Your task to perform on an android device: Open Chrome and go to the settings page Image 0: 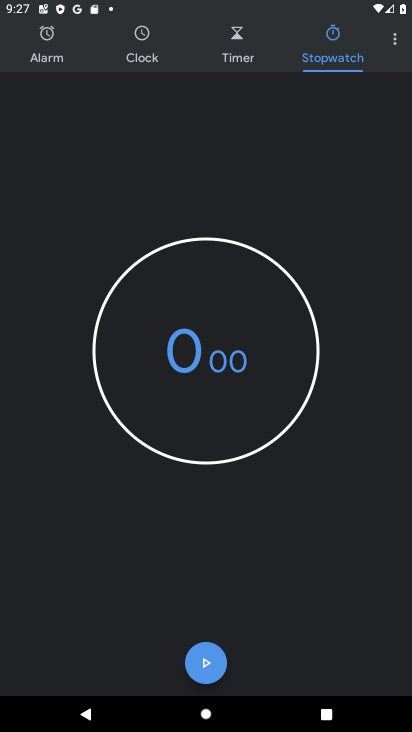
Step 0: press home button
Your task to perform on an android device: Open Chrome and go to the settings page Image 1: 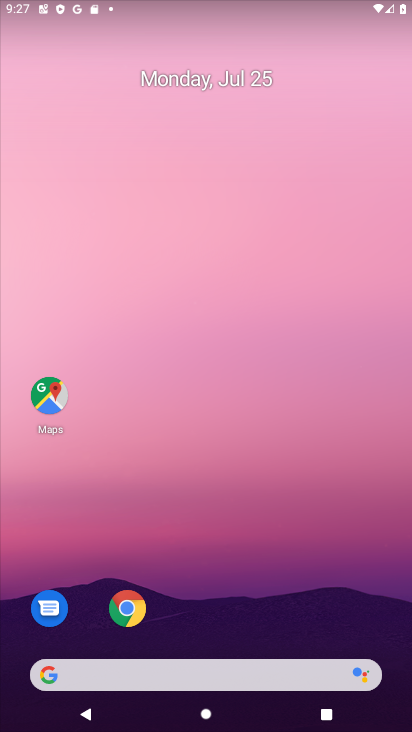
Step 1: click (123, 609)
Your task to perform on an android device: Open Chrome and go to the settings page Image 2: 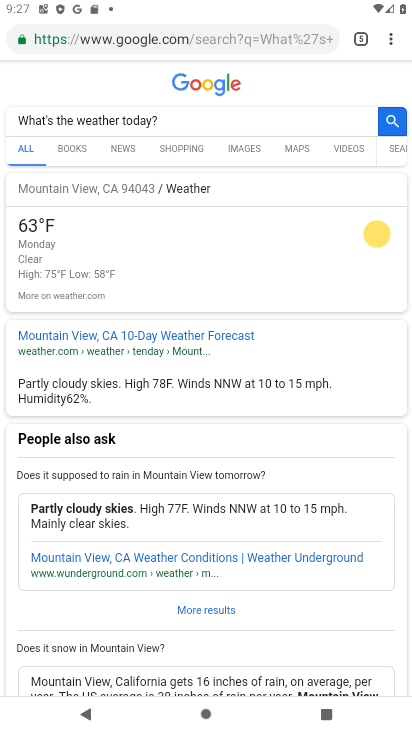
Step 2: click (396, 32)
Your task to perform on an android device: Open Chrome and go to the settings page Image 3: 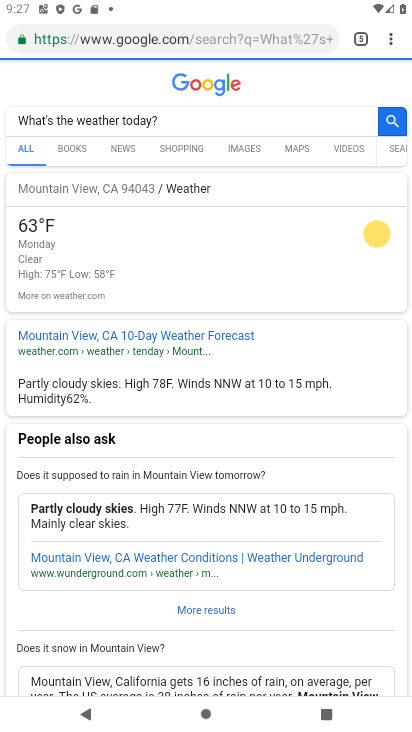
Step 3: click (398, 32)
Your task to perform on an android device: Open Chrome and go to the settings page Image 4: 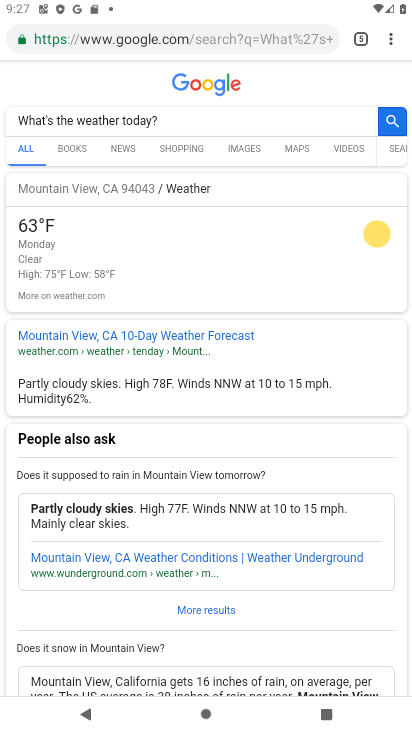
Step 4: click (389, 32)
Your task to perform on an android device: Open Chrome and go to the settings page Image 5: 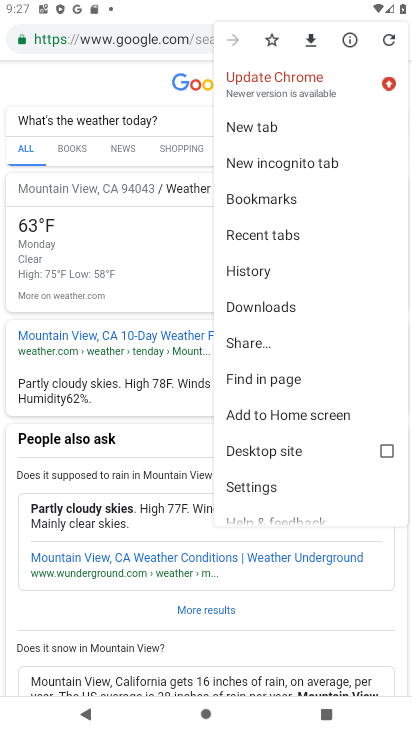
Step 5: click (269, 484)
Your task to perform on an android device: Open Chrome and go to the settings page Image 6: 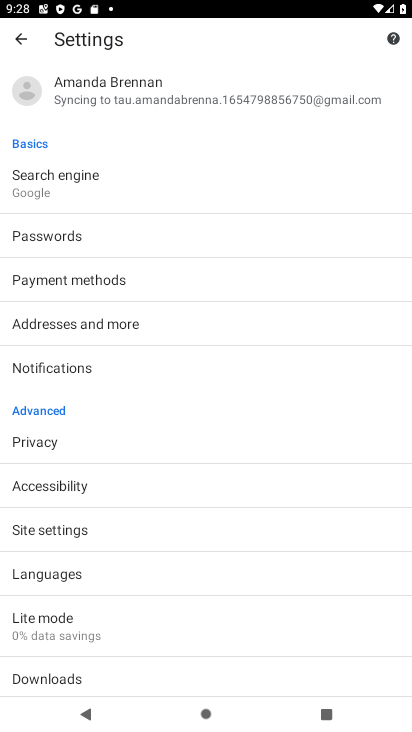
Step 6: task complete